Your task to perform on an android device: check battery use Image 0: 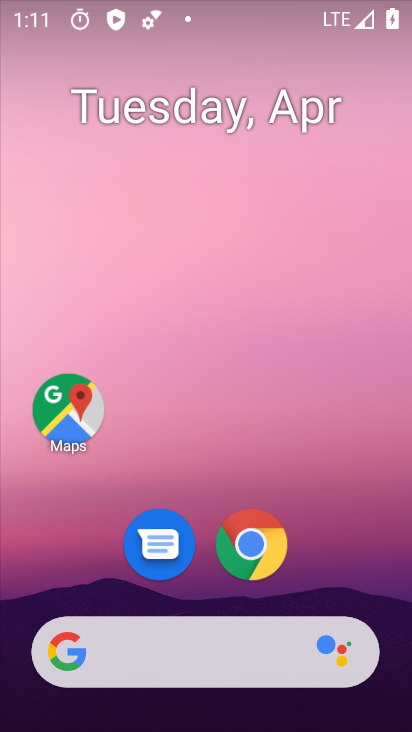
Step 0: drag from (352, 491) to (355, 31)
Your task to perform on an android device: check battery use Image 1: 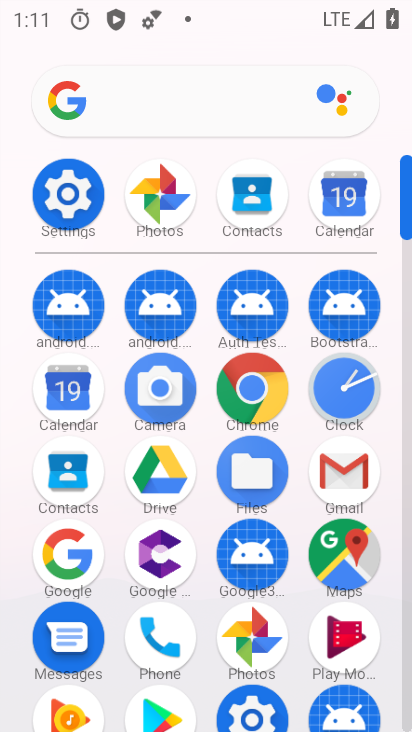
Step 1: click (70, 199)
Your task to perform on an android device: check battery use Image 2: 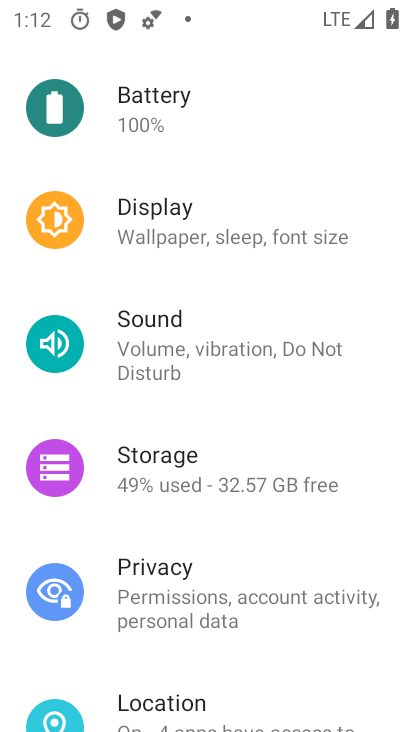
Step 2: click (153, 102)
Your task to perform on an android device: check battery use Image 3: 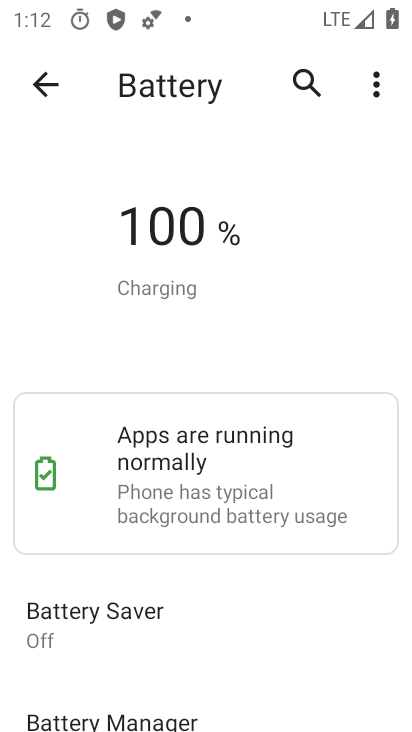
Step 3: click (377, 94)
Your task to perform on an android device: check battery use Image 4: 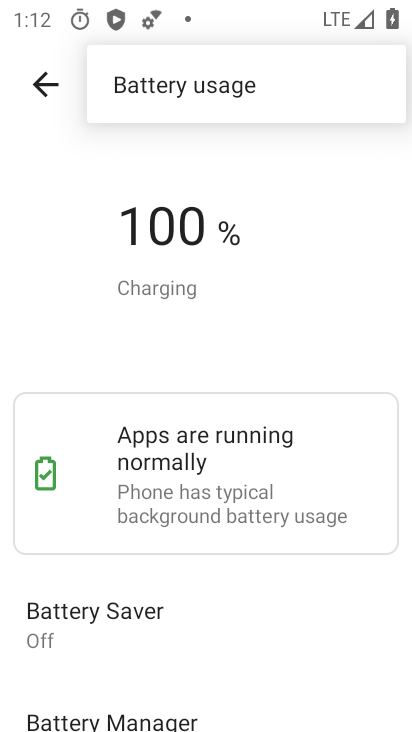
Step 4: click (188, 86)
Your task to perform on an android device: check battery use Image 5: 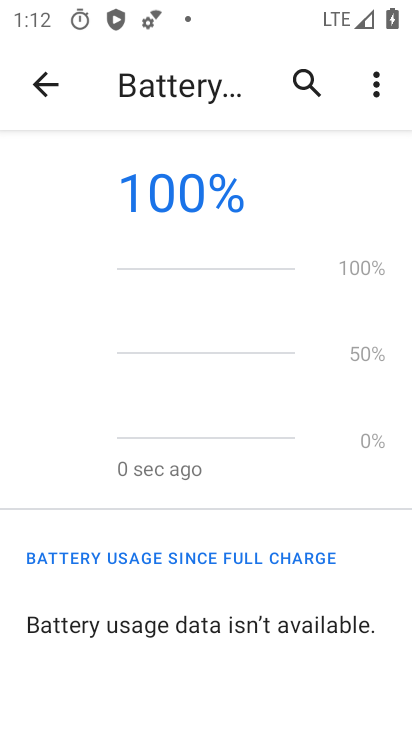
Step 5: task complete